Your task to perform on an android device: Open display settings Image 0: 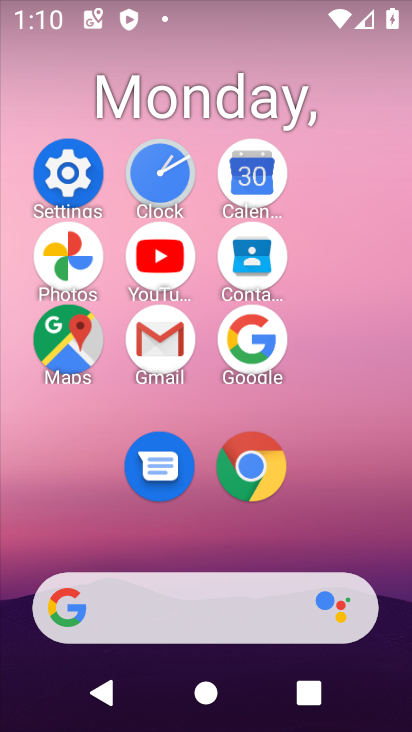
Step 0: click (74, 191)
Your task to perform on an android device: Open display settings Image 1: 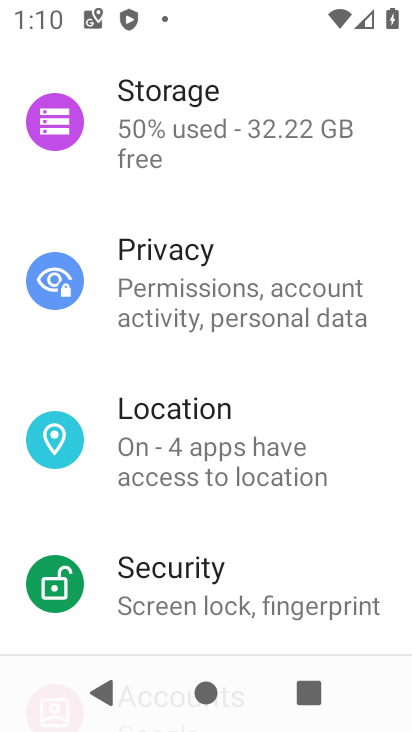
Step 1: drag from (332, 210) to (368, 556)
Your task to perform on an android device: Open display settings Image 2: 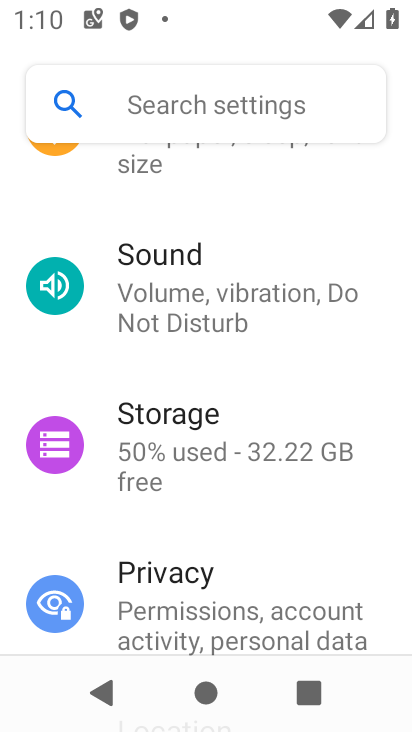
Step 2: drag from (241, 182) to (286, 480)
Your task to perform on an android device: Open display settings Image 3: 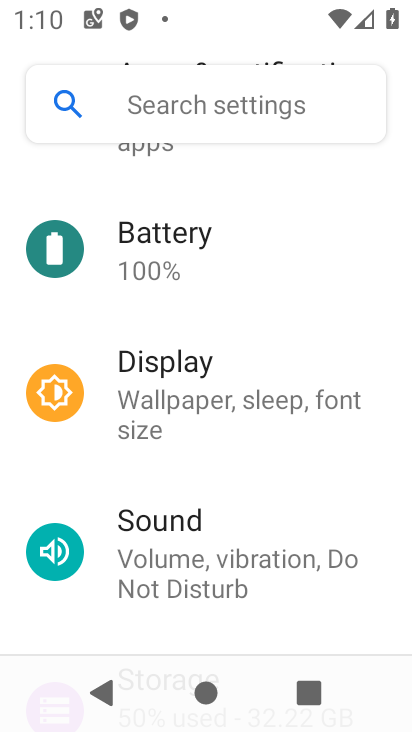
Step 3: click (233, 350)
Your task to perform on an android device: Open display settings Image 4: 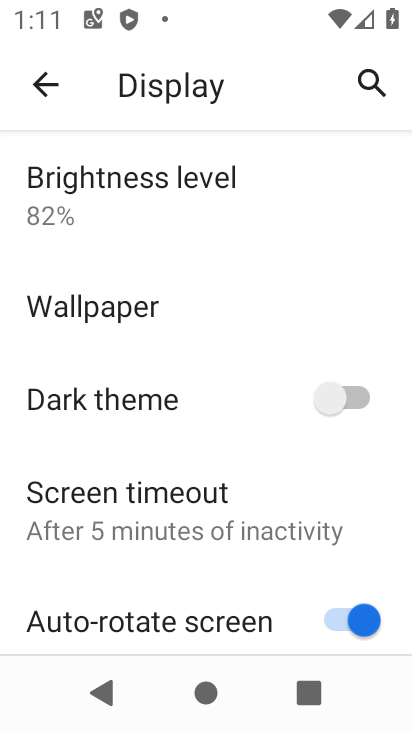
Step 4: task complete